Your task to perform on an android device: open app "Duolingo: language lessons" Image 0: 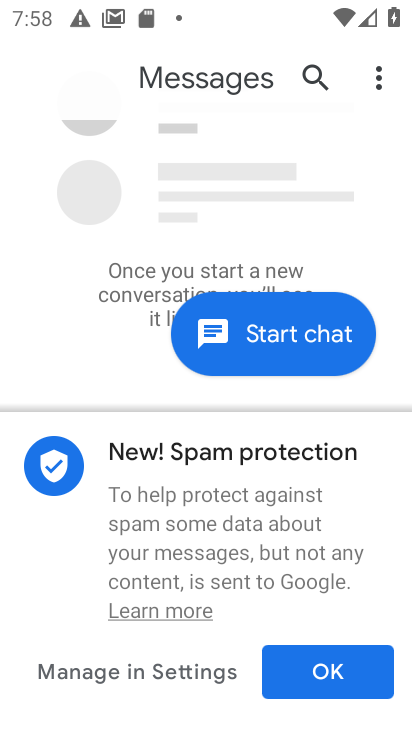
Step 0: press home button
Your task to perform on an android device: open app "Duolingo: language lessons" Image 1: 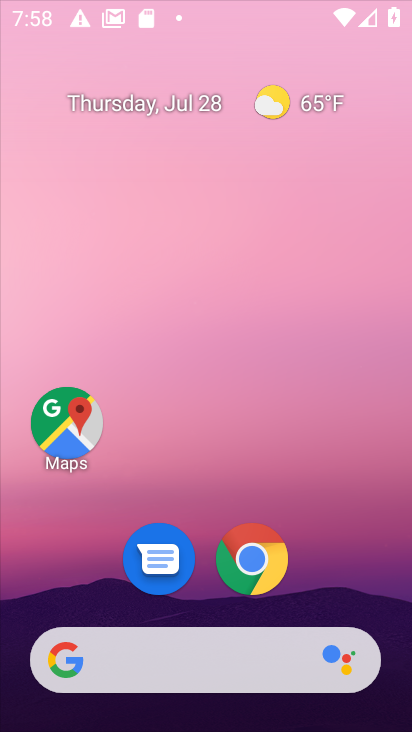
Step 1: drag from (201, 573) to (222, 85)
Your task to perform on an android device: open app "Duolingo: language lessons" Image 2: 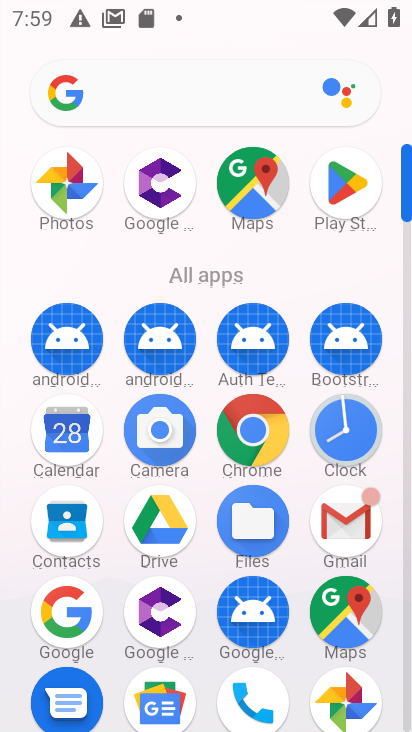
Step 2: click (358, 185)
Your task to perform on an android device: open app "Duolingo: language lessons" Image 3: 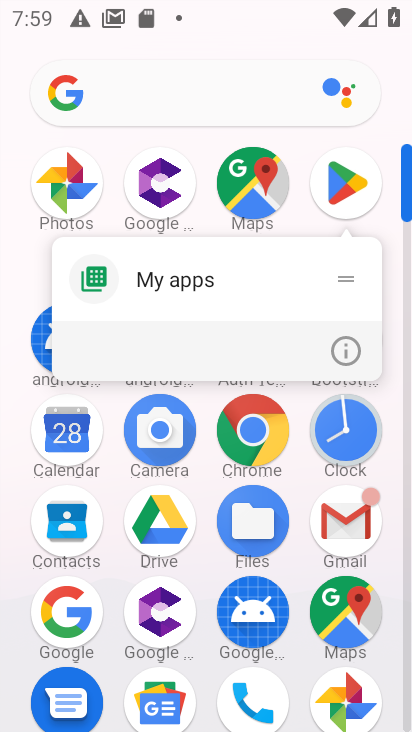
Step 3: click (340, 355)
Your task to perform on an android device: open app "Duolingo: language lessons" Image 4: 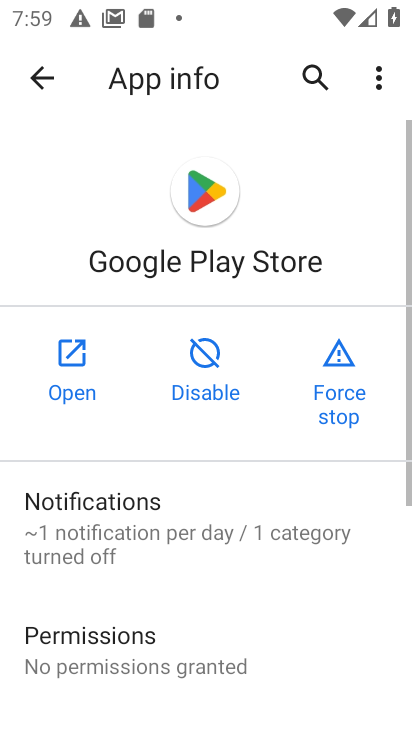
Step 4: click (57, 363)
Your task to perform on an android device: open app "Duolingo: language lessons" Image 5: 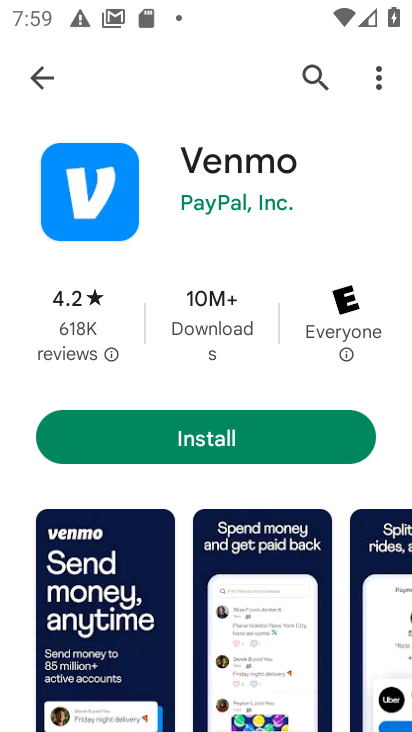
Step 5: click (309, 62)
Your task to perform on an android device: open app "Duolingo: language lessons" Image 6: 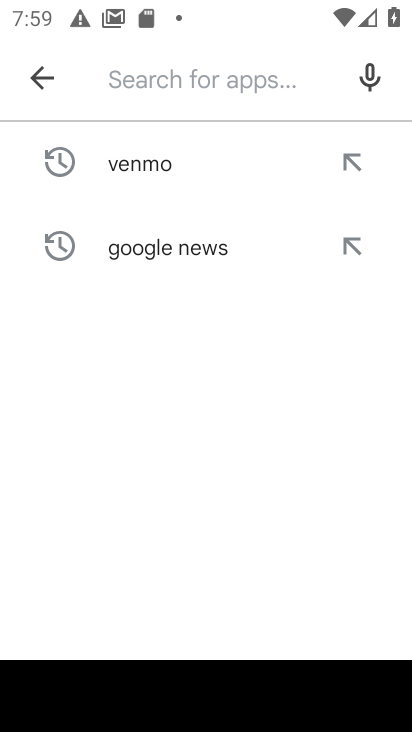
Step 6: type "Duolingo: language lessons"
Your task to perform on an android device: open app "Duolingo: language lessons" Image 7: 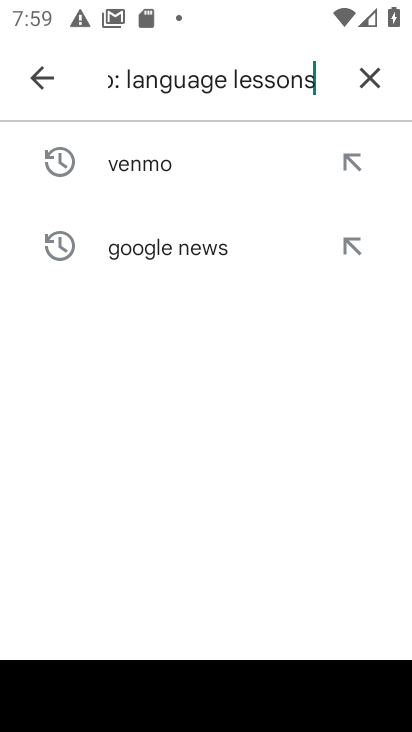
Step 7: type ""
Your task to perform on an android device: open app "Duolingo: language lessons" Image 8: 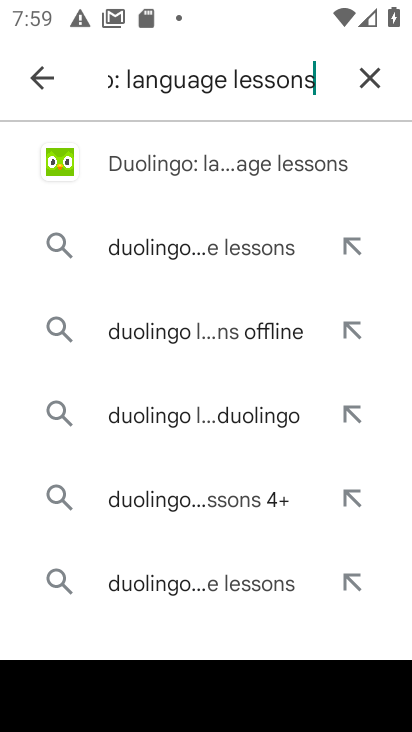
Step 8: click (182, 165)
Your task to perform on an android device: open app "Duolingo: language lessons" Image 9: 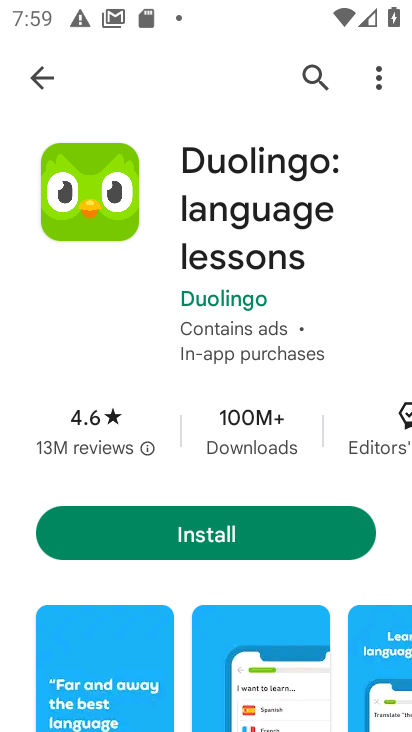
Step 9: task complete